Your task to perform on an android device: toggle notifications settings in the gmail app Image 0: 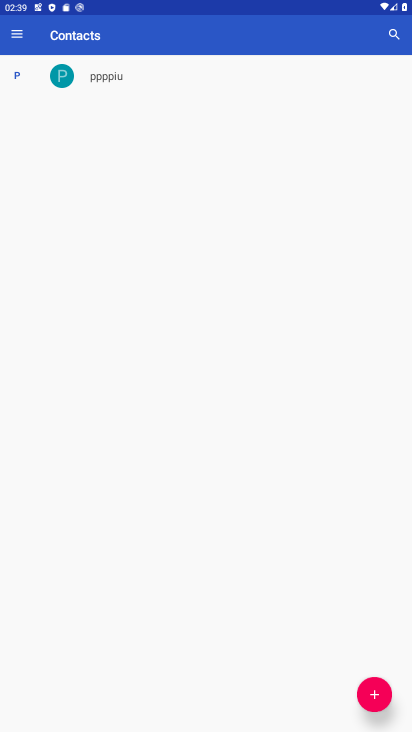
Step 0: press home button
Your task to perform on an android device: toggle notifications settings in the gmail app Image 1: 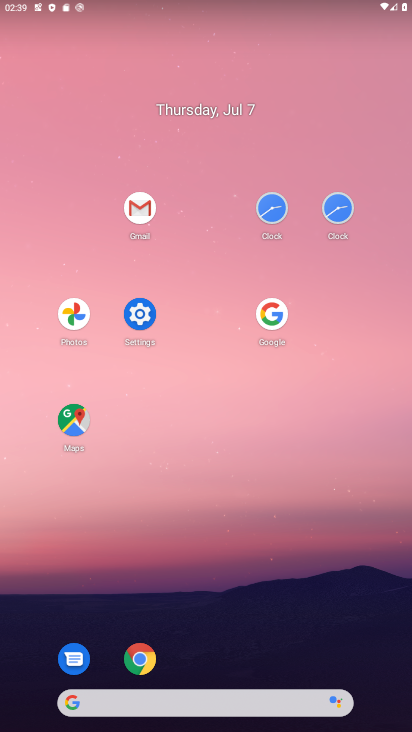
Step 1: click (143, 204)
Your task to perform on an android device: toggle notifications settings in the gmail app Image 2: 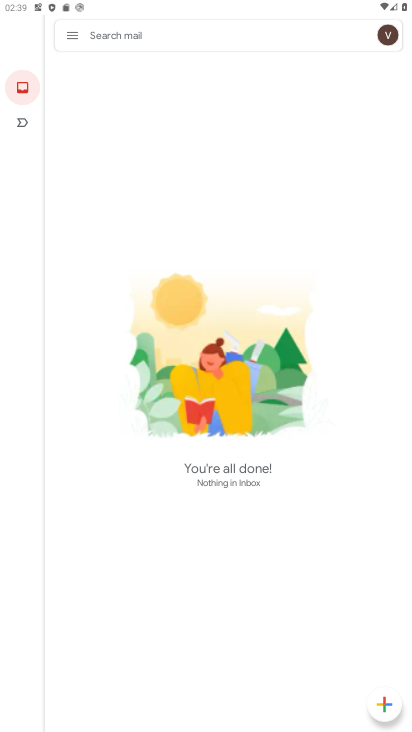
Step 2: click (76, 43)
Your task to perform on an android device: toggle notifications settings in the gmail app Image 3: 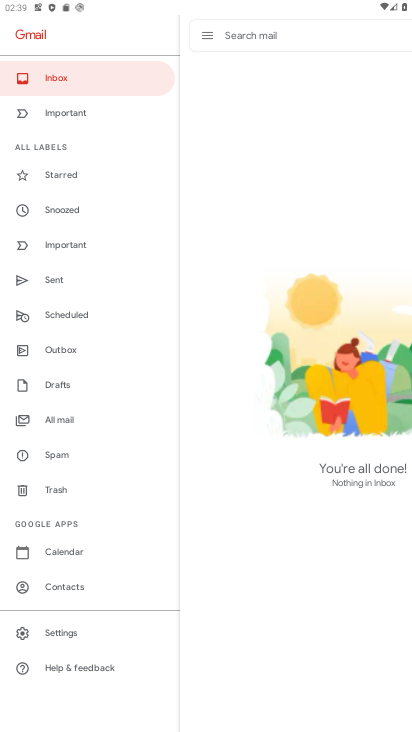
Step 3: click (79, 633)
Your task to perform on an android device: toggle notifications settings in the gmail app Image 4: 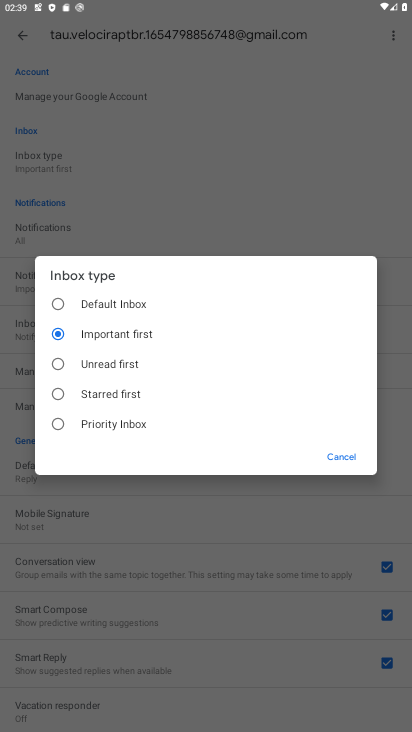
Step 4: press back button
Your task to perform on an android device: toggle notifications settings in the gmail app Image 5: 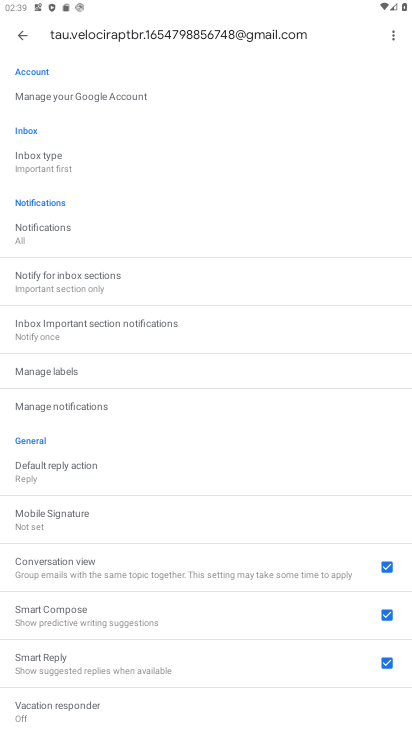
Step 5: click (93, 235)
Your task to perform on an android device: toggle notifications settings in the gmail app Image 6: 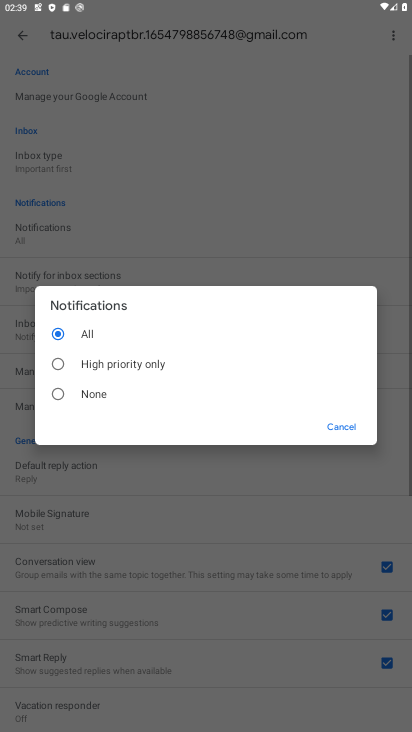
Step 6: click (137, 357)
Your task to perform on an android device: toggle notifications settings in the gmail app Image 7: 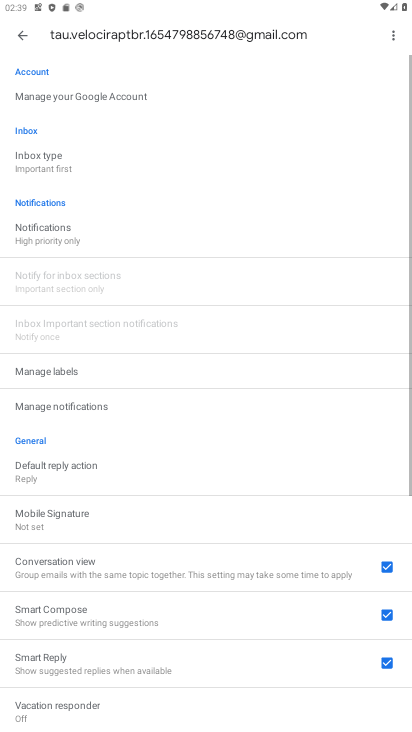
Step 7: task complete